Your task to perform on an android device: Turn on the flashlight Image 0: 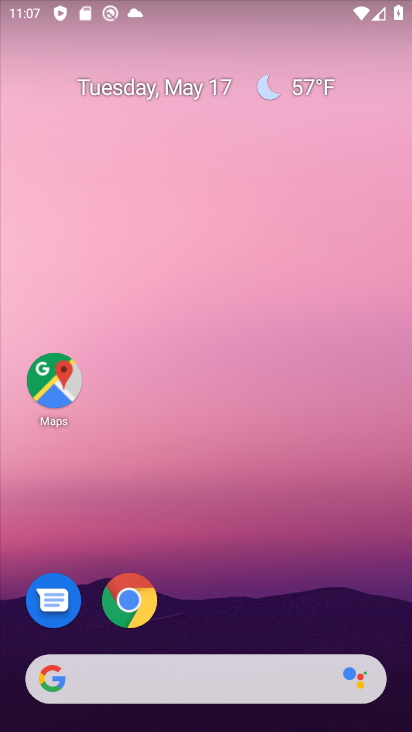
Step 0: drag from (218, 657) to (159, 99)
Your task to perform on an android device: Turn on the flashlight Image 1: 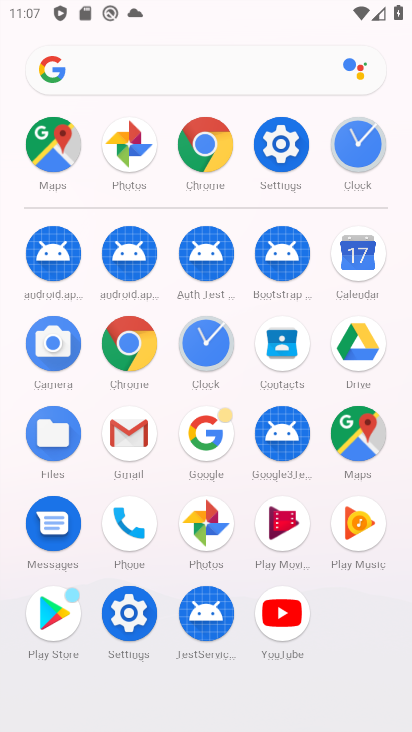
Step 1: task complete